Your task to perform on an android device: Go to accessibility settings Image 0: 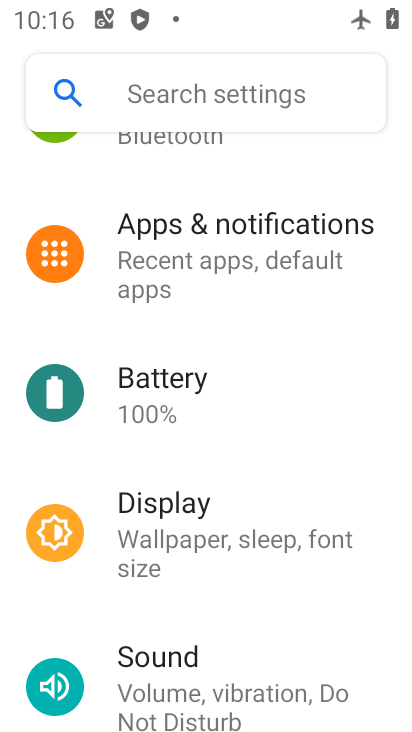
Step 0: drag from (177, 678) to (270, 136)
Your task to perform on an android device: Go to accessibility settings Image 1: 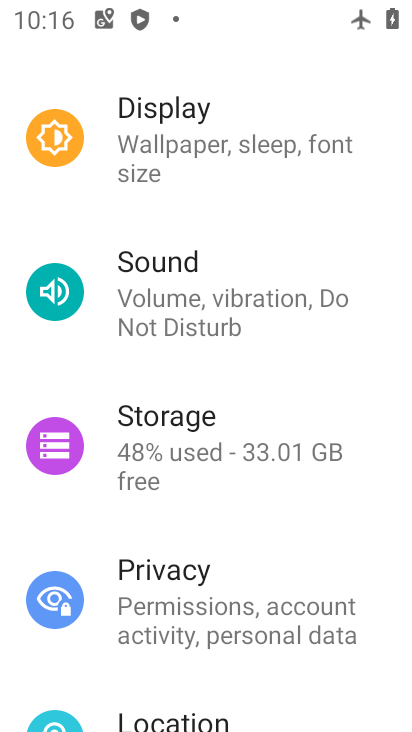
Step 1: drag from (148, 612) to (265, 109)
Your task to perform on an android device: Go to accessibility settings Image 2: 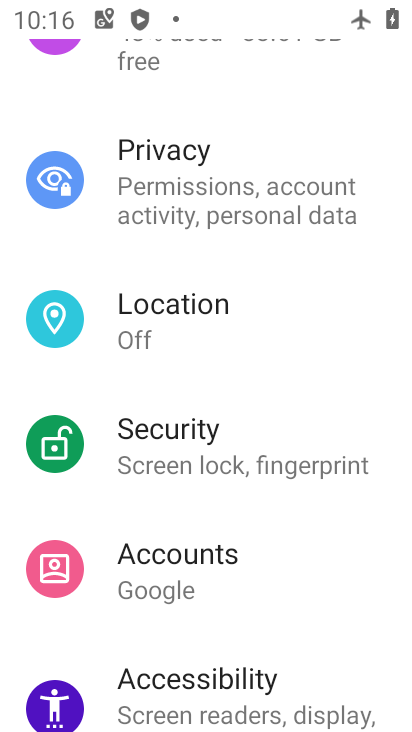
Step 2: drag from (164, 673) to (280, 268)
Your task to perform on an android device: Go to accessibility settings Image 3: 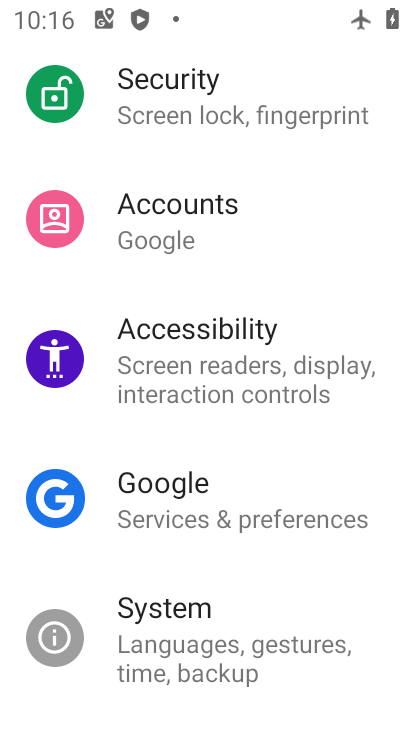
Step 3: click (201, 358)
Your task to perform on an android device: Go to accessibility settings Image 4: 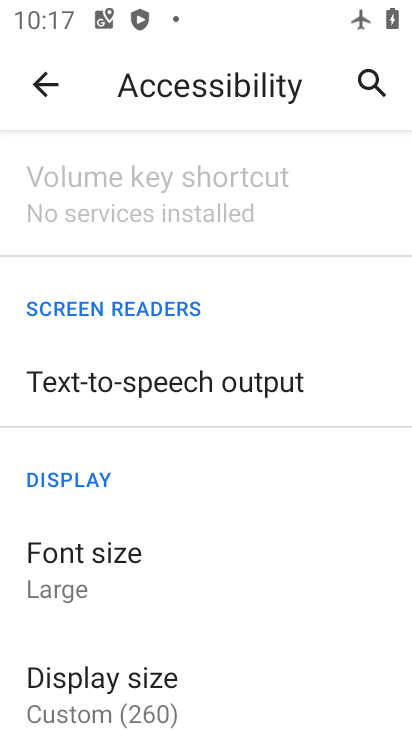
Step 4: task complete